Your task to perform on an android device: Open accessibility settings Image 0: 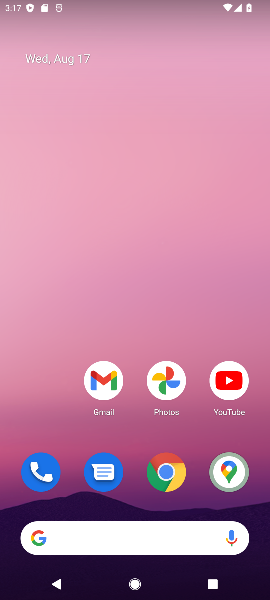
Step 0: drag from (128, 423) to (128, 150)
Your task to perform on an android device: Open accessibility settings Image 1: 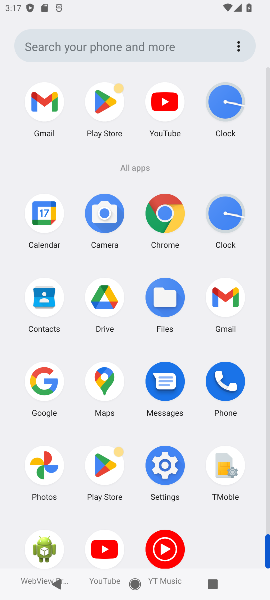
Step 1: click (169, 463)
Your task to perform on an android device: Open accessibility settings Image 2: 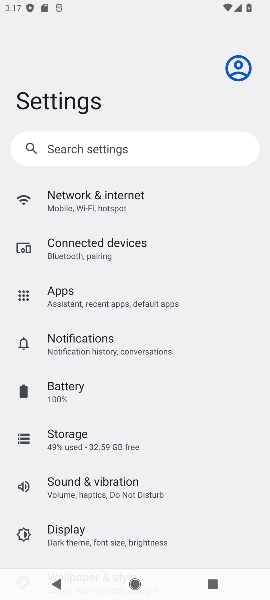
Step 2: drag from (112, 488) to (124, 228)
Your task to perform on an android device: Open accessibility settings Image 3: 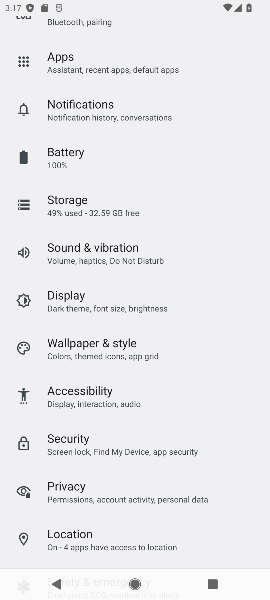
Step 3: click (105, 394)
Your task to perform on an android device: Open accessibility settings Image 4: 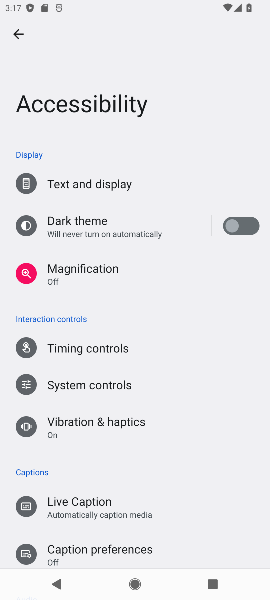
Step 4: task complete